Your task to perform on an android device: Go to internet settings Image 0: 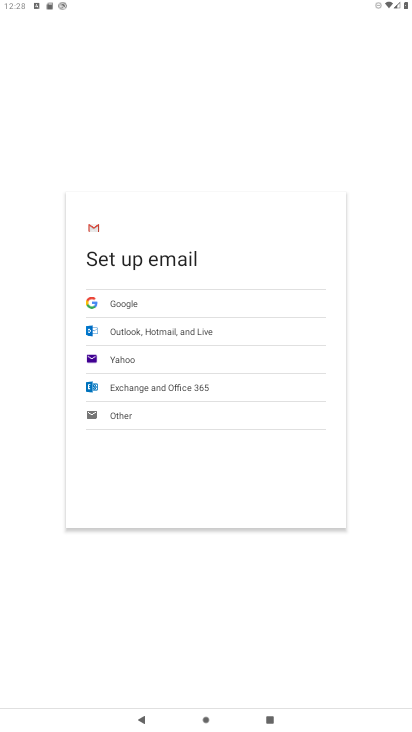
Step 0: press home button
Your task to perform on an android device: Go to internet settings Image 1: 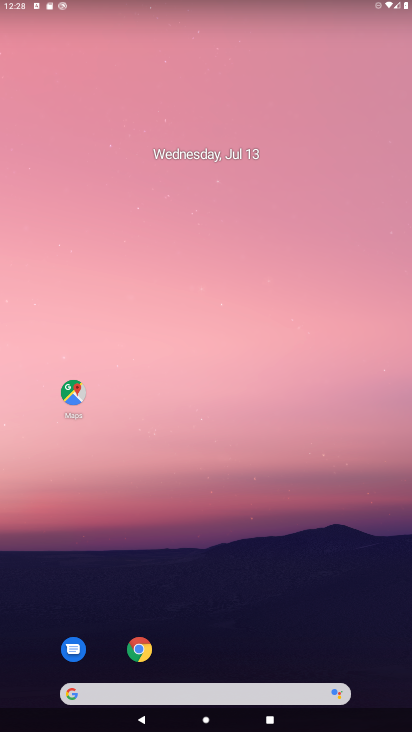
Step 1: drag from (333, 651) to (330, 100)
Your task to perform on an android device: Go to internet settings Image 2: 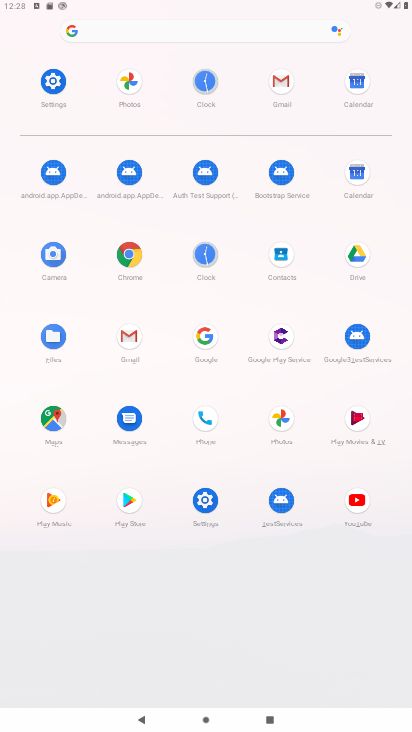
Step 2: click (205, 502)
Your task to perform on an android device: Go to internet settings Image 3: 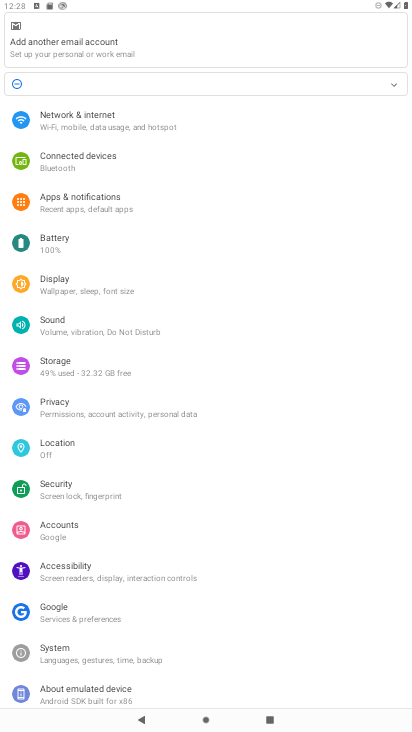
Step 3: click (65, 121)
Your task to perform on an android device: Go to internet settings Image 4: 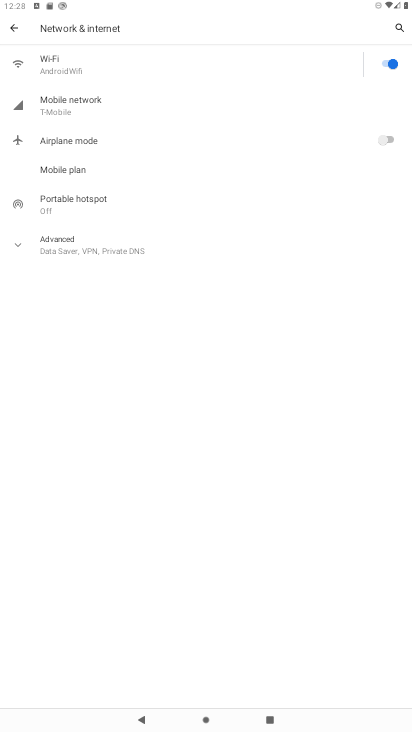
Step 4: click (15, 242)
Your task to perform on an android device: Go to internet settings Image 5: 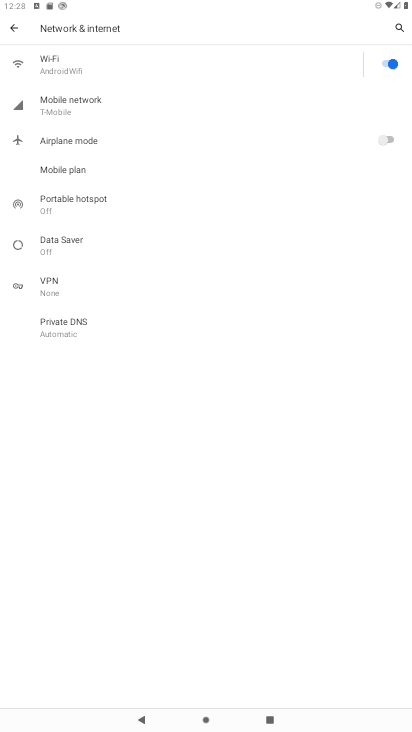
Step 5: task complete